Your task to perform on an android device: turn on data saver in the chrome app Image 0: 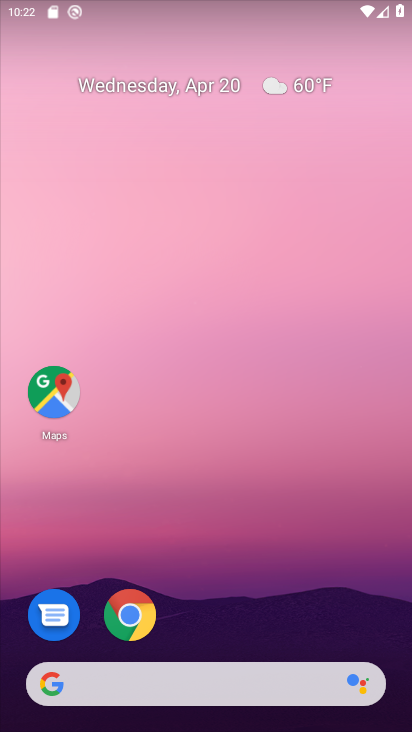
Step 0: drag from (370, 603) to (315, 165)
Your task to perform on an android device: turn on data saver in the chrome app Image 1: 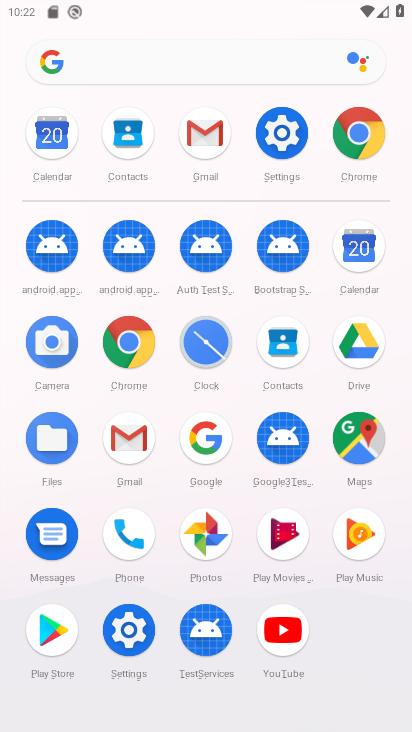
Step 1: click (133, 349)
Your task to perform on an android device: turn on data saver in the chrome app Image 2: 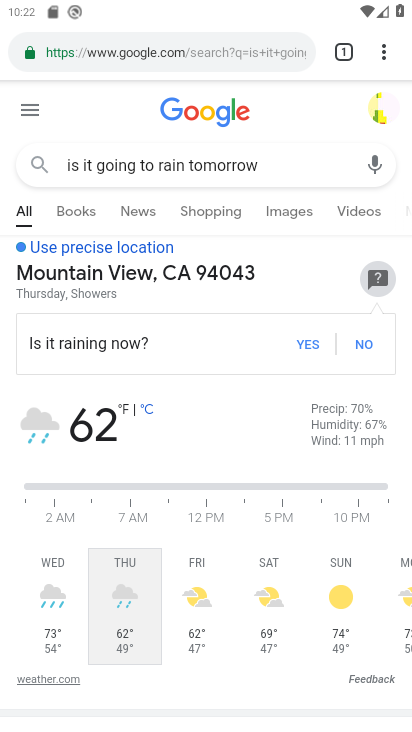
Step 2: drag from (379, 61) to (239, 584)
Your task to perform on an android device: turn on data saver in the chrome app Image 3: 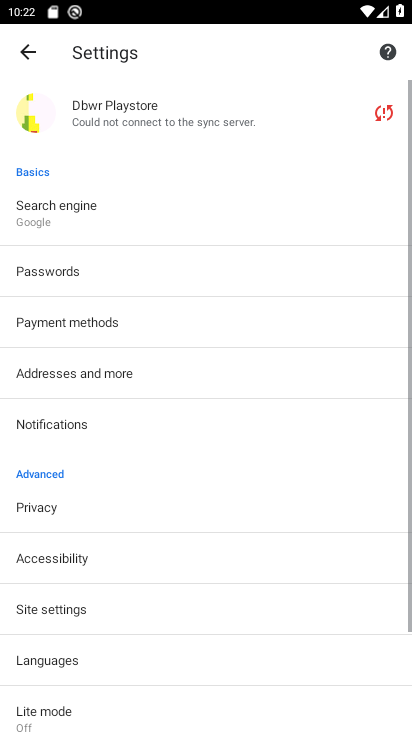
Step 3: drag from (230, 654) to (262, 313)
Your task to perform on an android device: turn on data saver in the chrome app Image 4: 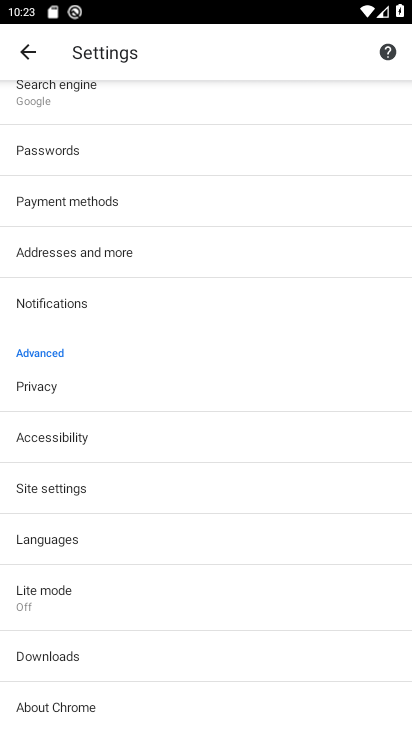
Step 4: click (56, 604)
Your task to perform on an android device: turn on data saver in the chrome app Image 5: 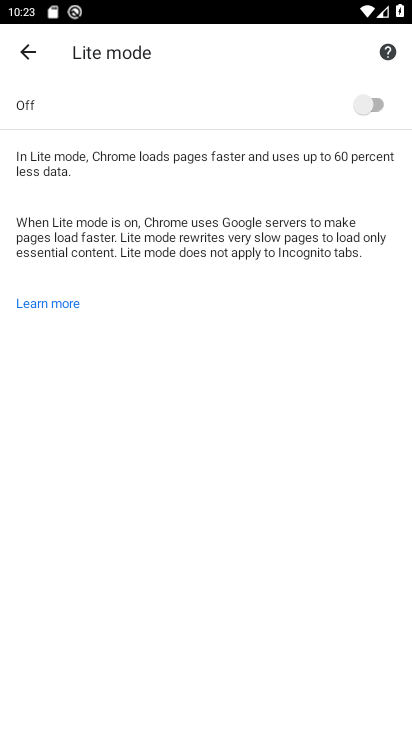
Step 5: click (376, 110)
Your task to perform on an android device: turn on data saver in the chrome app Image 6: 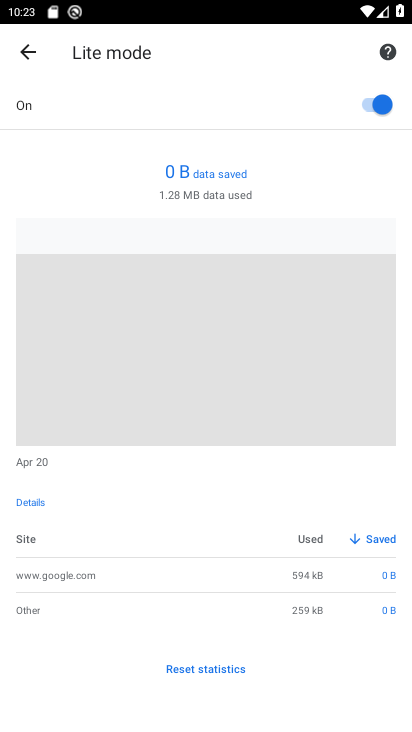
Step 6: task complete